Your task to perform on an android device: toggle sleep mode Image 0: 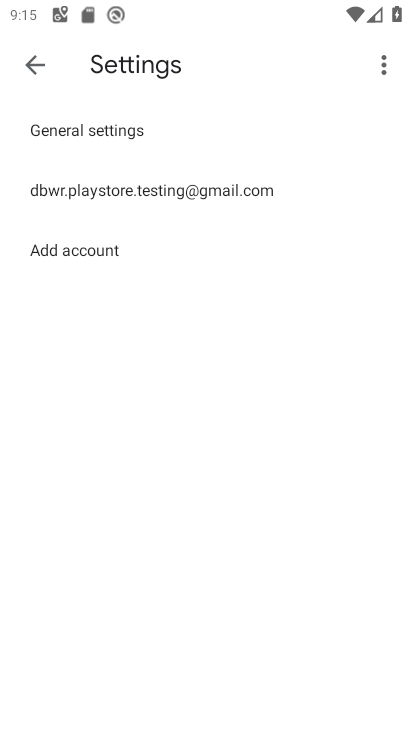
Step 0: press home button
Your task to perform on an android device: toggle sleep mode Image 1: 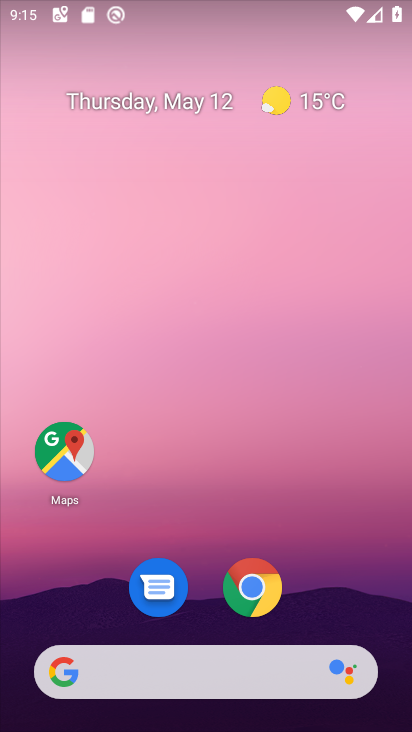
Step 1: drag from (379, 653) to (284, 41)
Your task to perform on an android device: toggle sleep mode Image 2: 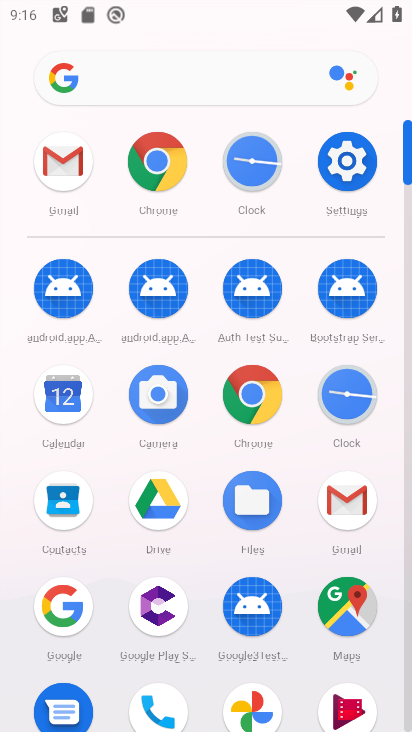
Step 2: click (367, 173)
Your task to perform on an android device: toggle sleep mode Image 3: 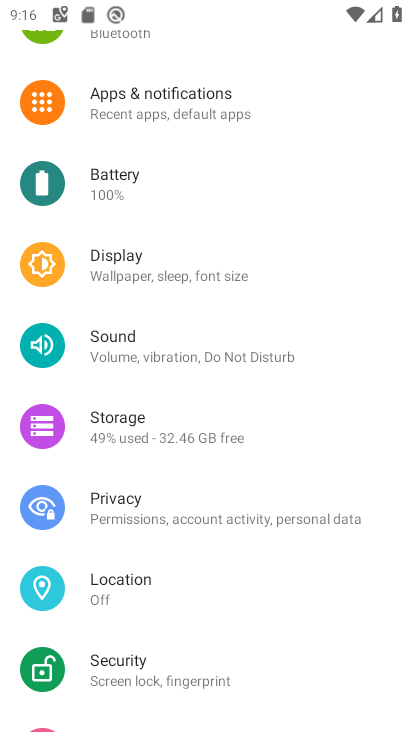
Step 3: task complete